Your task to perform on an android device: Open Reddit.com Image 0: 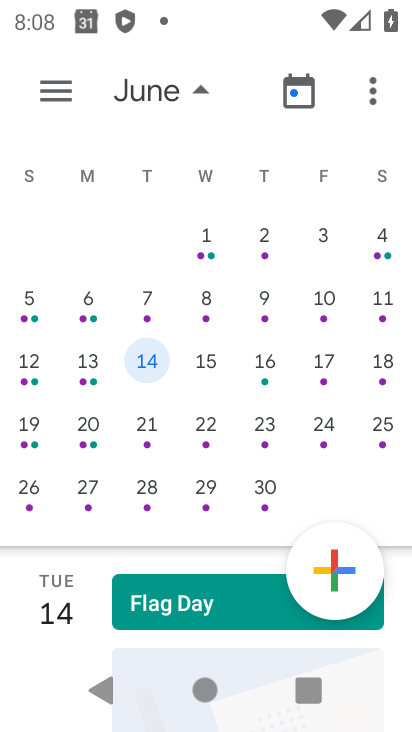
Step 0: press home button
Your task to perform on an android device: Open Reddit.com Image 1: 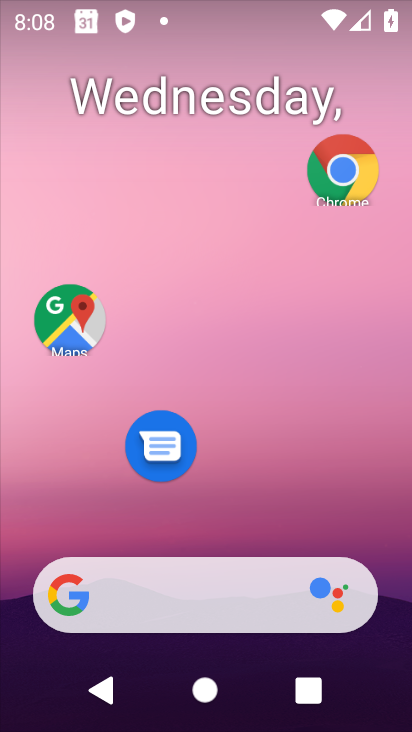
Step 1: drag from (339, 533) to (359, 118)
Your task to perform on an android device: Open Reddit.com Image 2: 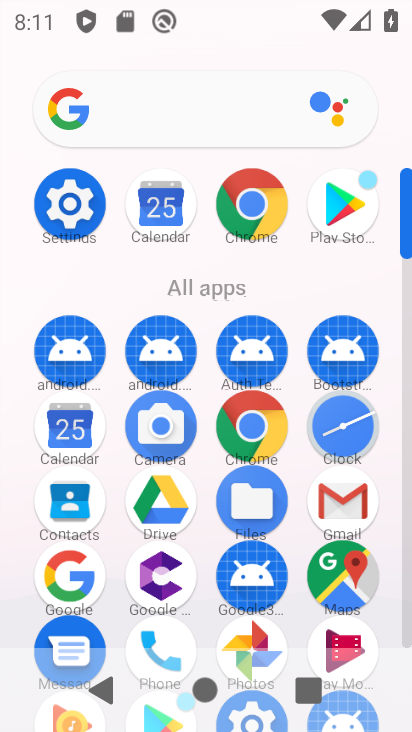
Step 2: click (245, 211)
Your task to perform on an android device: Open Reddit.com Image 3: 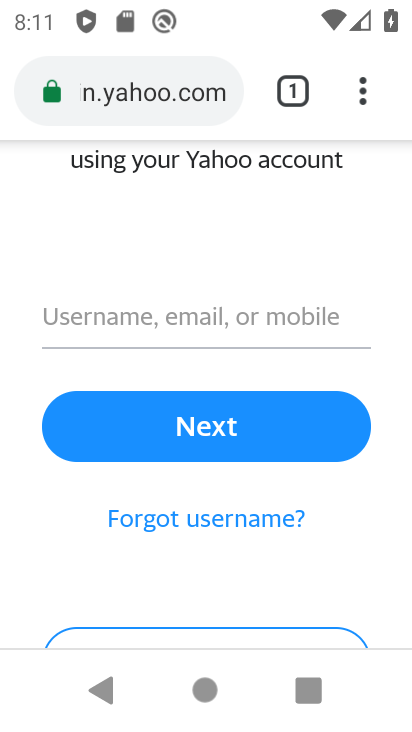
Step 3: click (148, 100)
Your task to perform on an android device: Open Reddit.com Image 4: 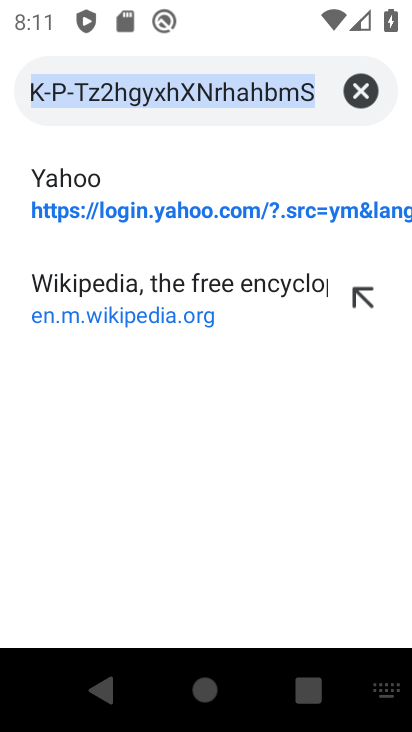
Step 4: click (354, 97)
Your task to perform on an android device: Open Reddit.com Image 5: 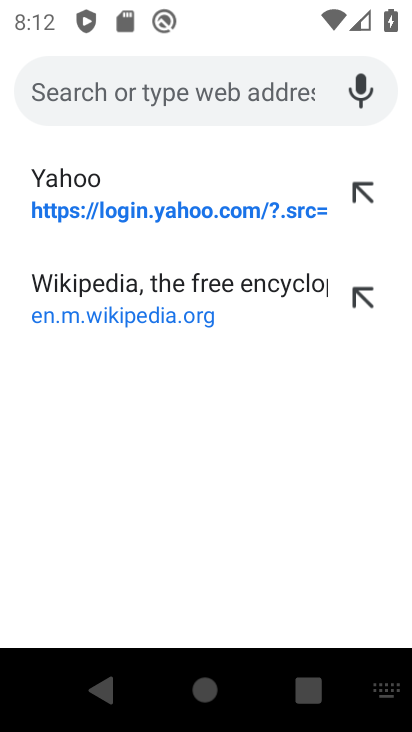
Step 5: type "reddit"
Your task to perform on an android device: Open Reddit.com Image 6: 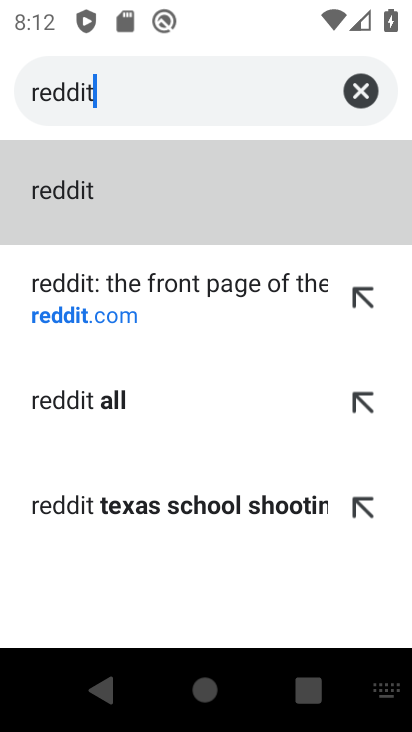
Step 6: click (112, 319)
Your task to perform on an android device: Open Reddit.com Image 7: 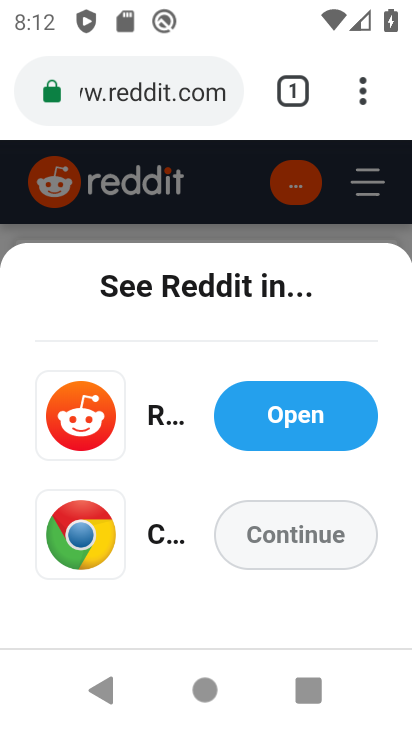
Step 7: task complete